Your task to perform on an android device: Open the web browser Image 0: 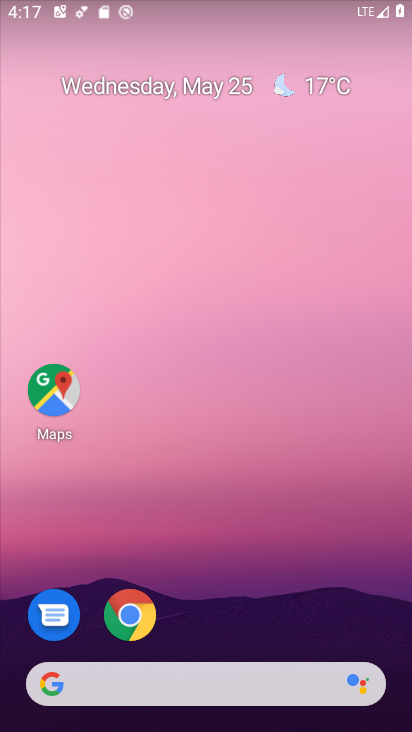
Step 0: click (142, 625)
Your task to perform on an android device: Open the web browser Image 1: 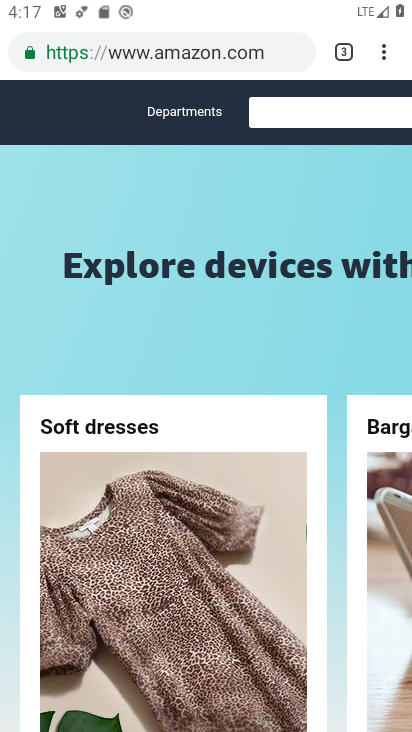
Step 1: task complete